Your task to perform on an android device: Add razer huntsman to the cart on target.com Image 0: 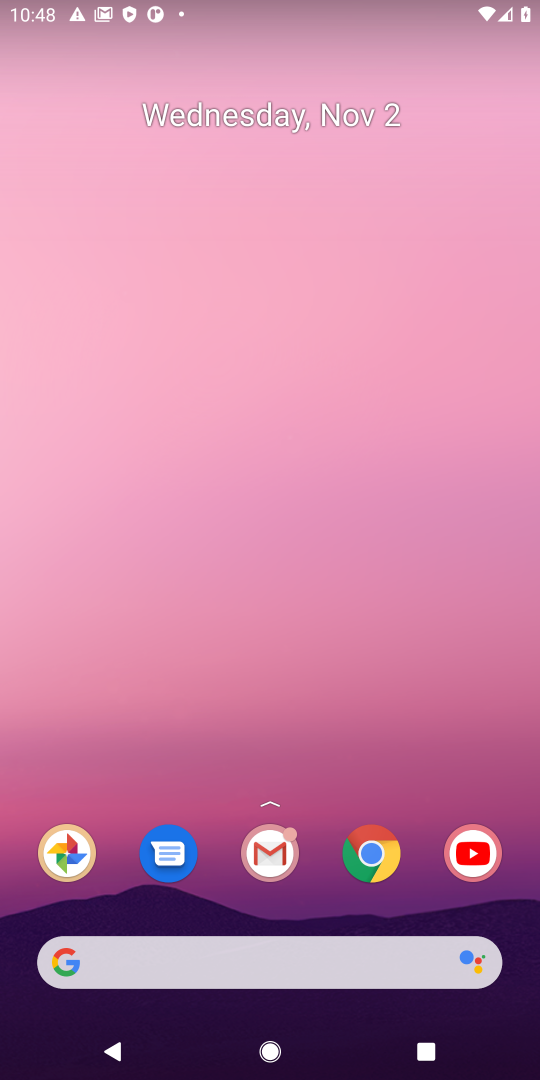
Step 0: click (378, 862)
Your task to perform on an android device: Add razer huntsman to the cart on target.com Image 1: 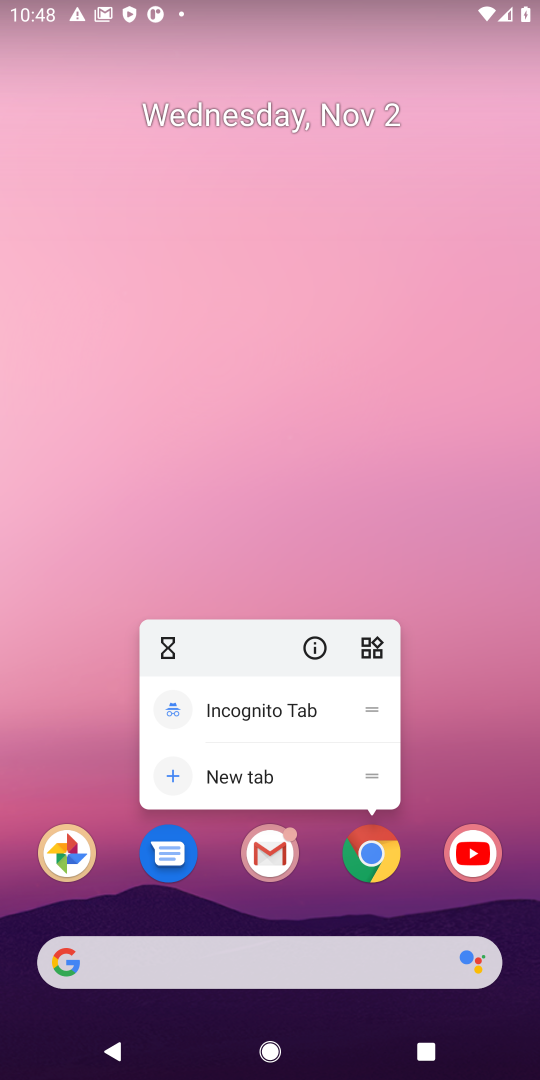
Step 1: click (380, 841)
Your task to perform on an android device: Add razer huntsman to the cart on target.com Image 2: 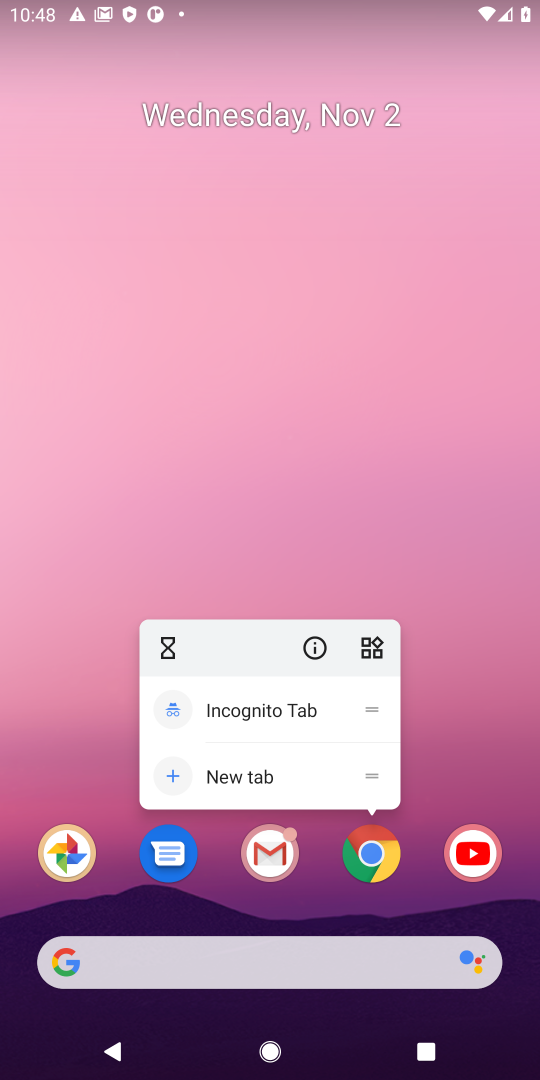
Step 2: click (380, 843)
Your task to perform on an android device: Add razer huntsman to the cart on target.com Image 3: 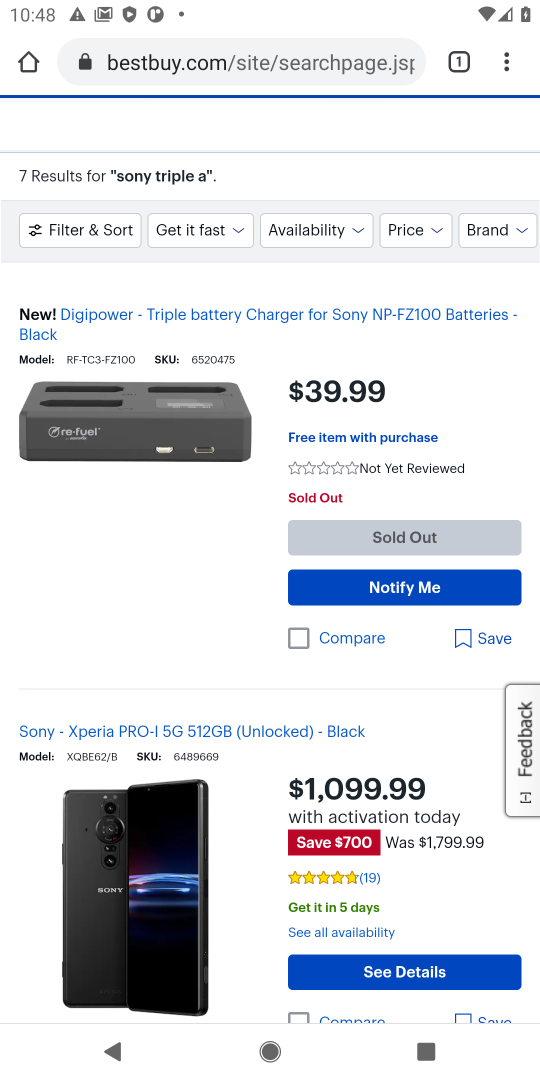
Step 3: click (310, 62)
Your task to perform on an android device: Add razer huntsman to the cart on target.com Image 4: 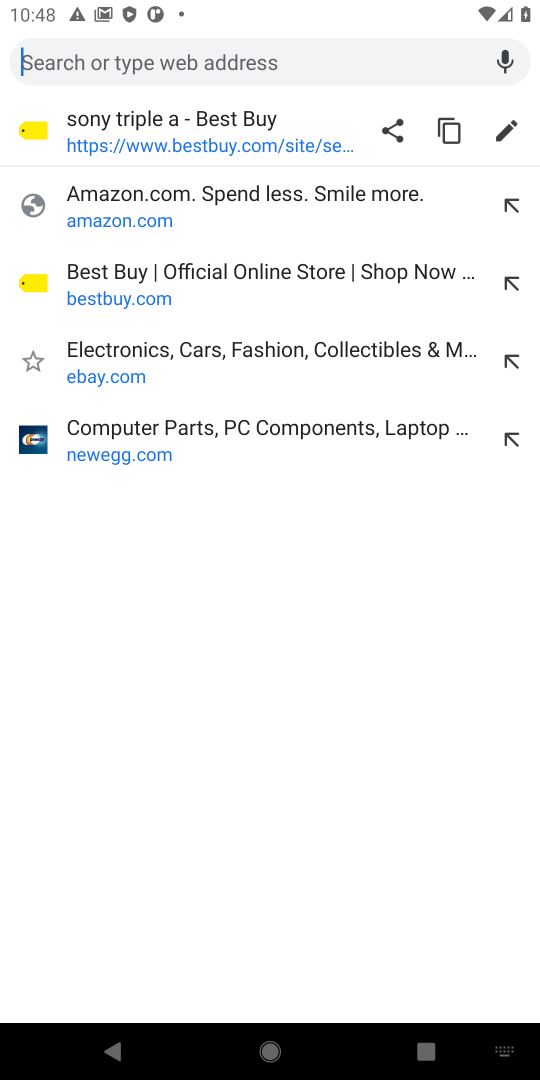
Step 4: type " target.com"
Your task to perform on an android device: Add razer huntsman to the cart on target.com Image 5: 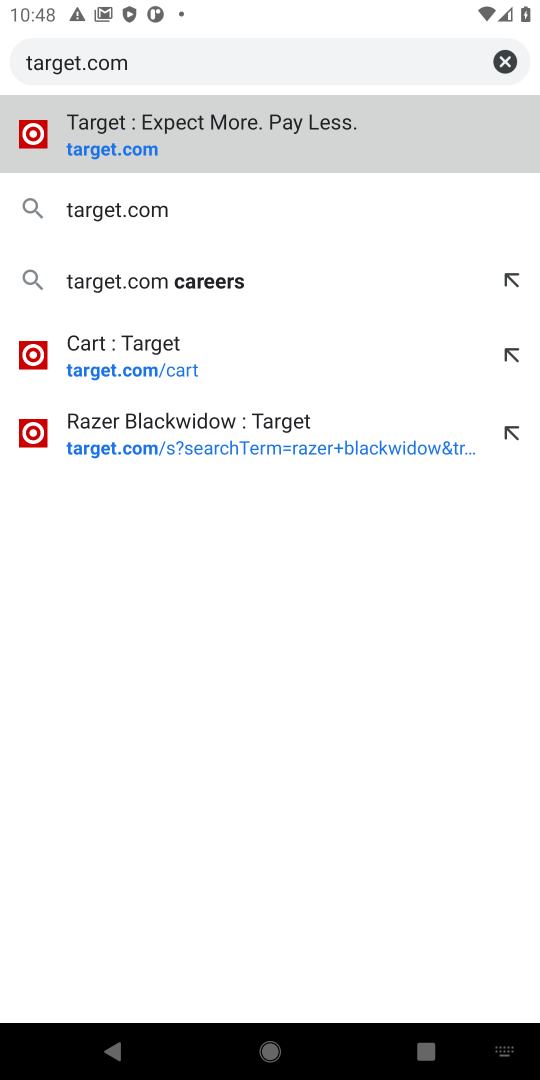
Step 5: press enter
Your task to perform on an android device: Add razer huntsman to the cart on target.com Image 6: 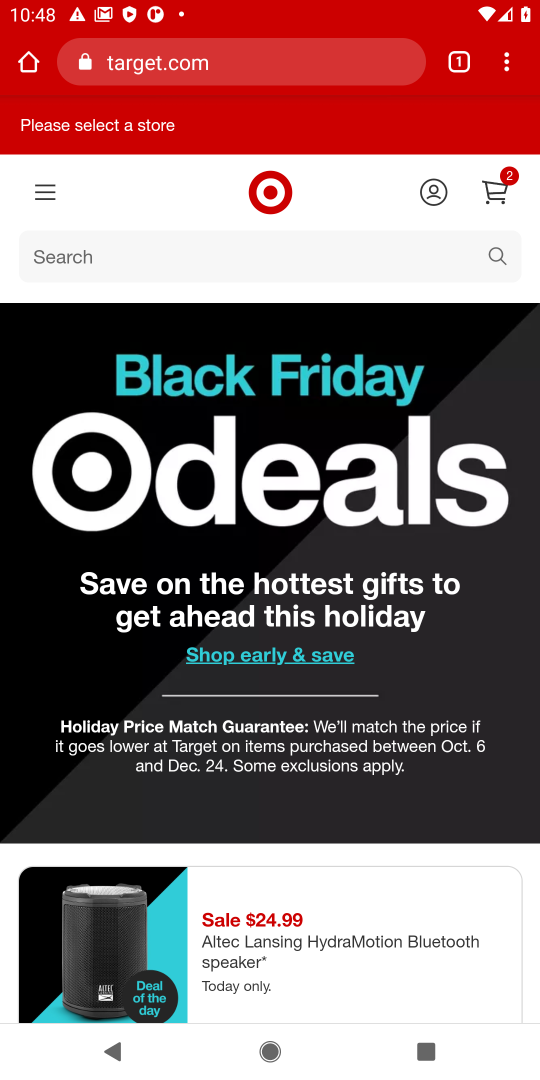
Step 6: click (123, 253)
Your task to perform on an android device: Add razer huntsman to the cart on target.com Image 7: 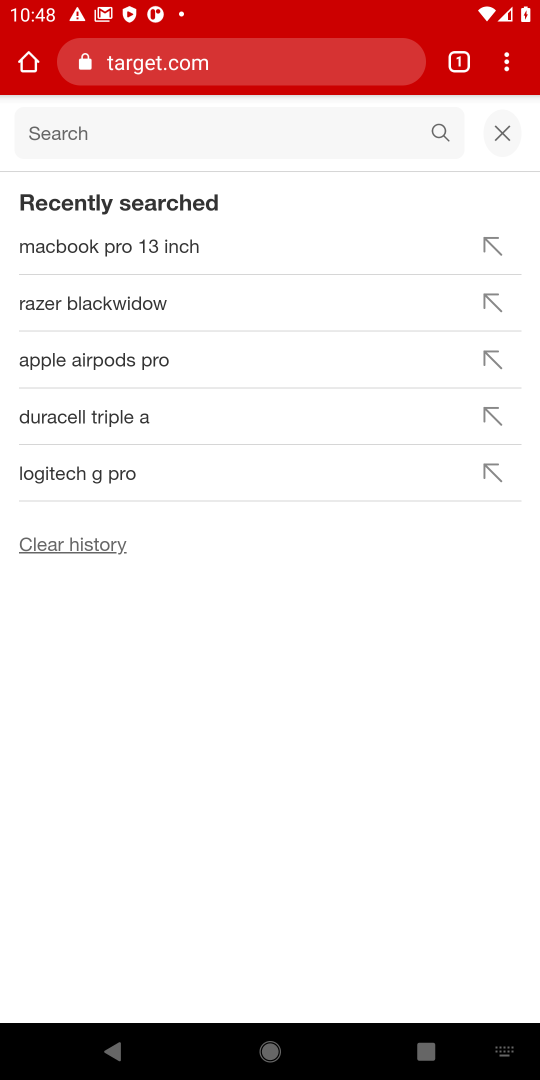
Step 7: type " razer huntsman"
Your task to perform on an android device: Add razer huntsman to the cart on target.com Image 8: 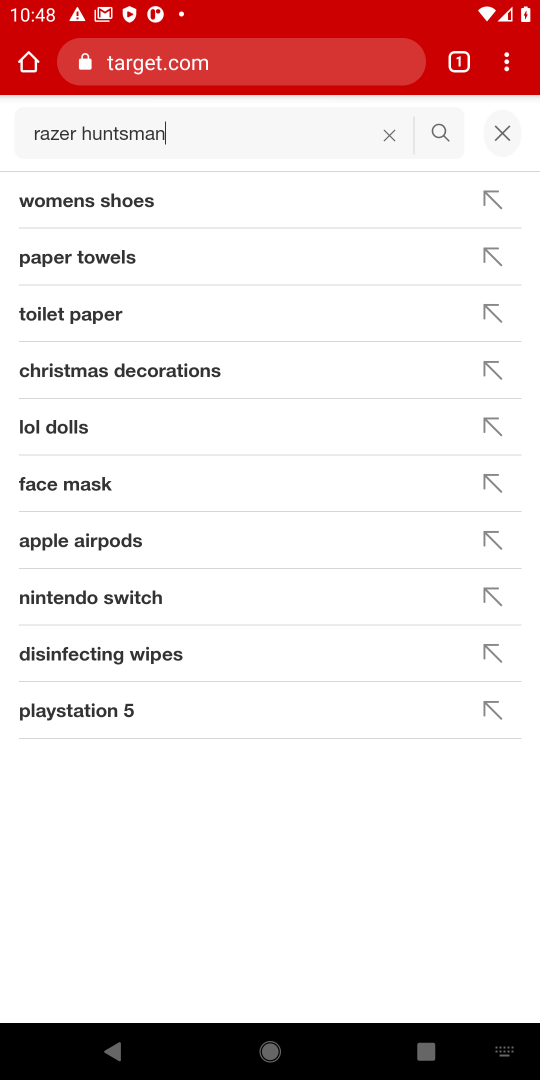
Step 8: press enter
Your task to perform on an android device: Add razer huntsman to the cart on target.com Image 9: 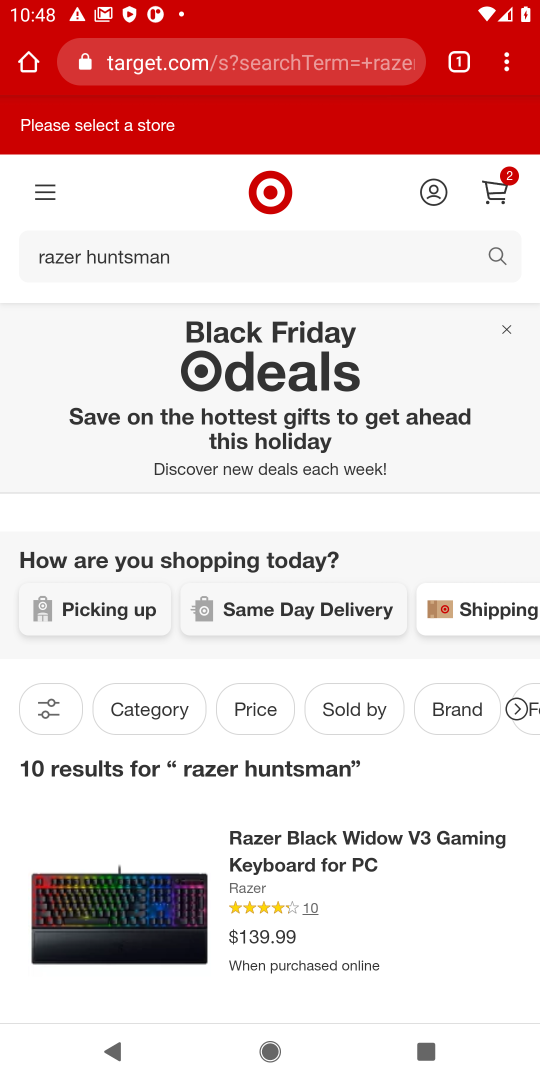
Step 9: task complete